Your task to perform on an android device: change the clock style Image 0: 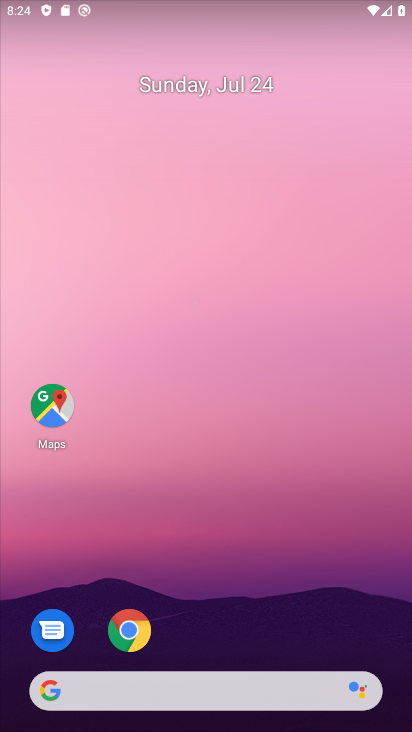
Step 0: drag from (246, 624) to (273, 84)
Your task to perform on an android device: change the clock style Image 1: 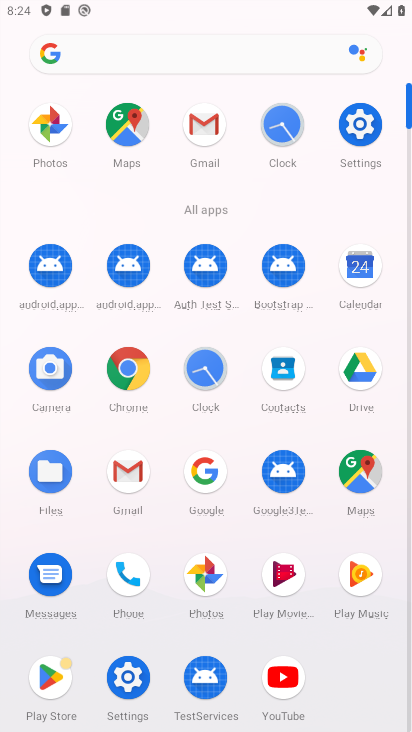
Step 1: click (286, 133)
Your task to perform on an android device: change the clock style Image 2: 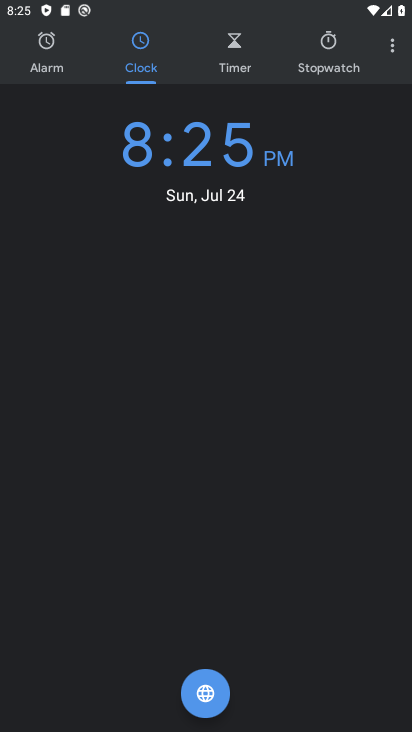
Step 2: click (406, 44)
Your task to perform on an android device: change the clock style Image 3: 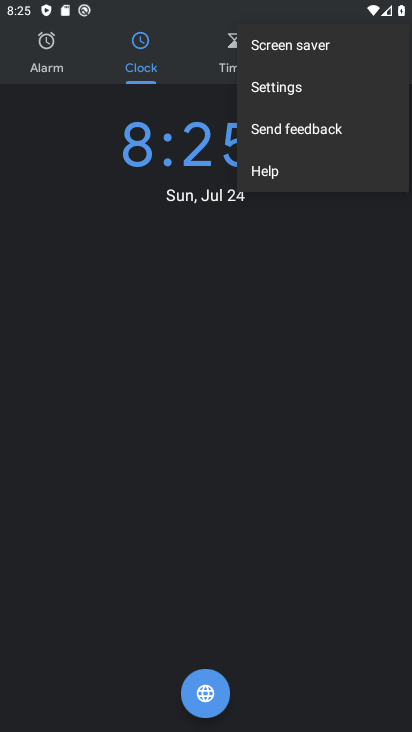
Step 3: click (348, 87)
Your task to perform on an android device: change the clock style Image 4: 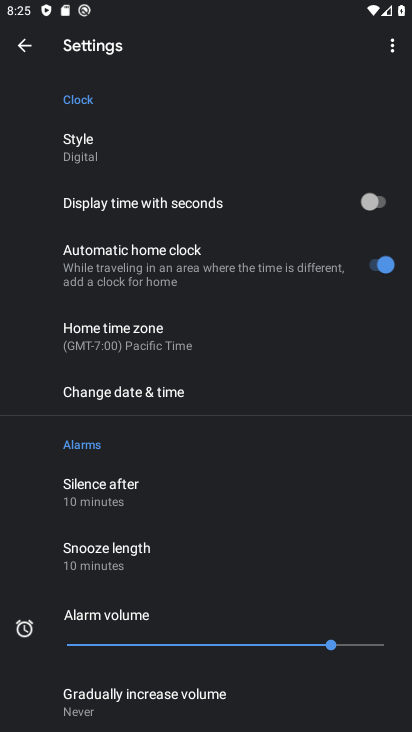
Step 4: click (264, 144)
Your task to perform on an android device: change the clock style Image 5: 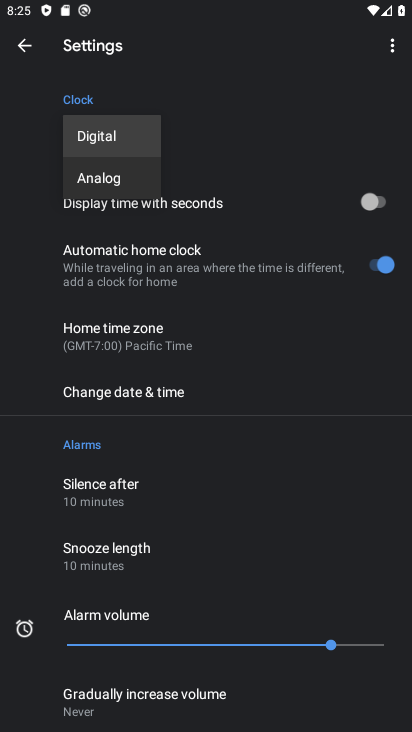
Step 5: click (129, 187)
Your task to perform on an android device: change the clock style Image 6: 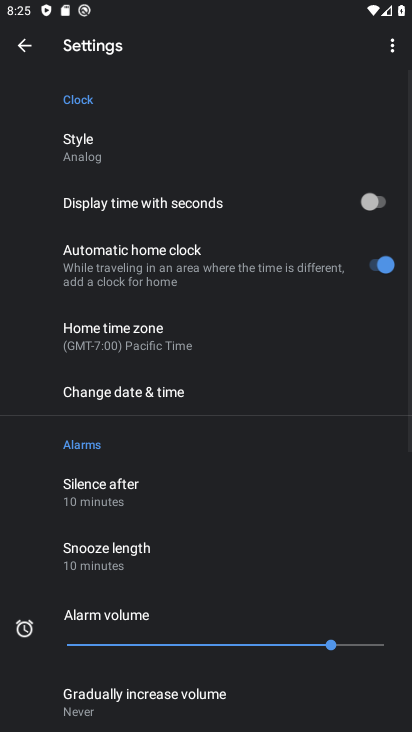
Step 6: task complete